Your task to perform on an android device: turn off priority inbox in the gmail app Image 0: 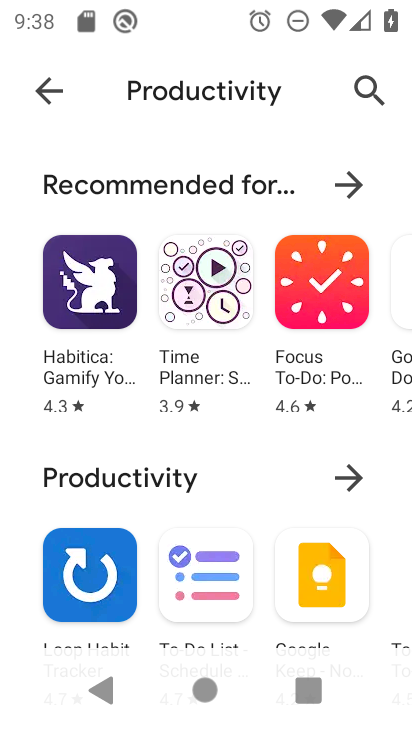
Step 0: press home button
Your task to perform on an android device: turn off priority inbox in the gmail app Image 1: 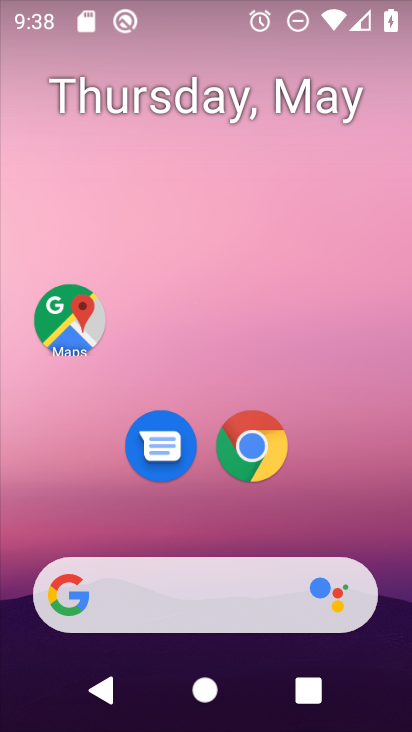
Step 1: drag from (369, 500) to (373, 136)
Your task to perform on an android device: turn off priority inbox in the gmail app Image 2: 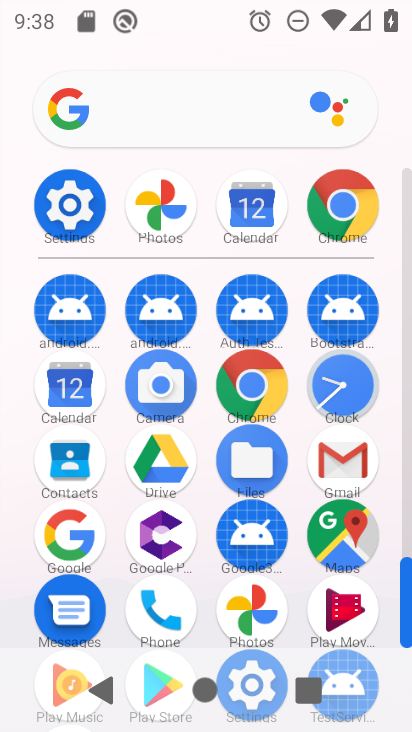
Step 2: click (332, 454)
Your task to perform on an android device: turn off priority inbox in the gmail app Image 3: 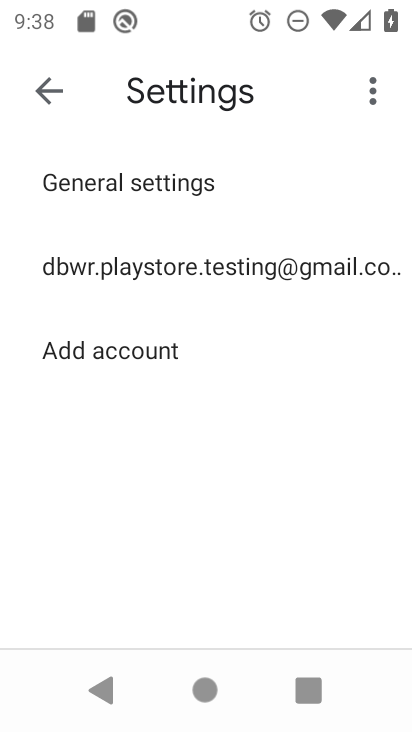
Step 3: click (242, 279)
Your task to perform on an android device: turn off priority inbox in the gmail app Image 4: 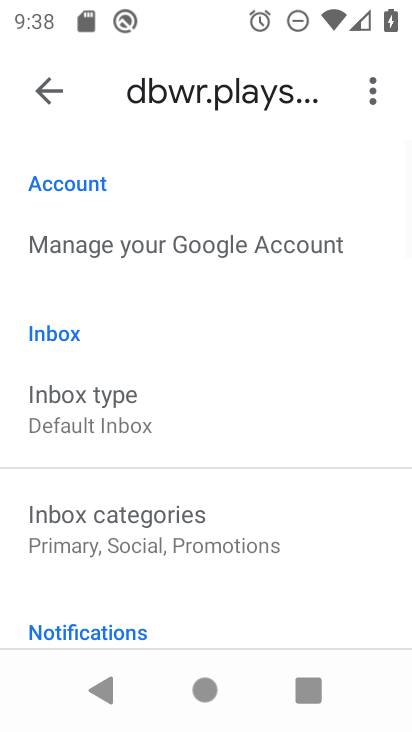
Step 4: click (118, 398)
Your task to perform on an android device: turn off priority inbox in the gmail app Image 5: 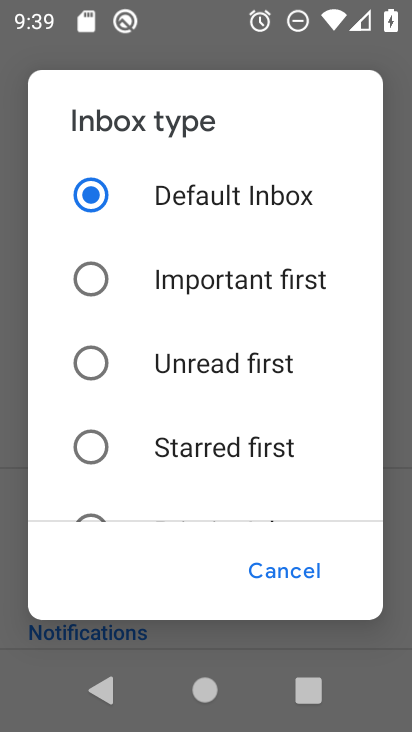
Step 5: task complete